Your task to perform on an android device: Go to Maps Image 0: 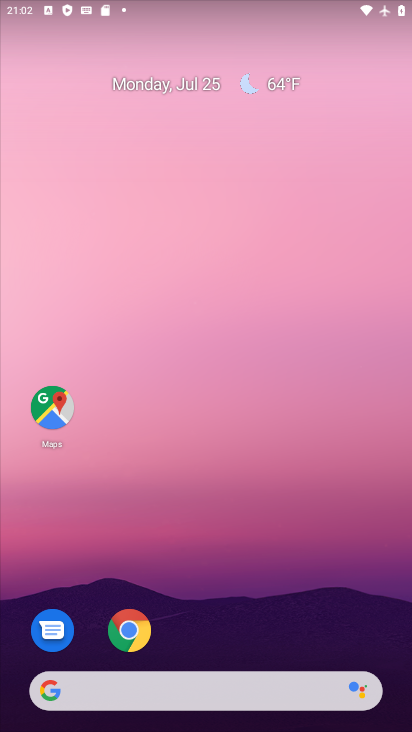
Step 0: click (54, 406)
Your task to perform on an android device: Go to Maps Image 1: 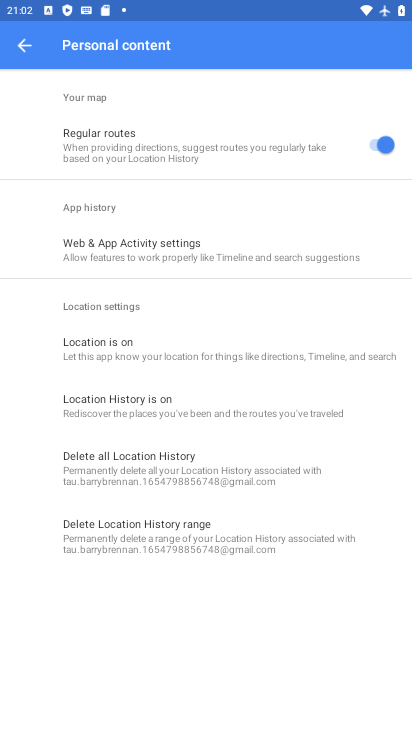
Step 1: task complete